Your task to perform on an android device: Open accessibility settings Image 0: 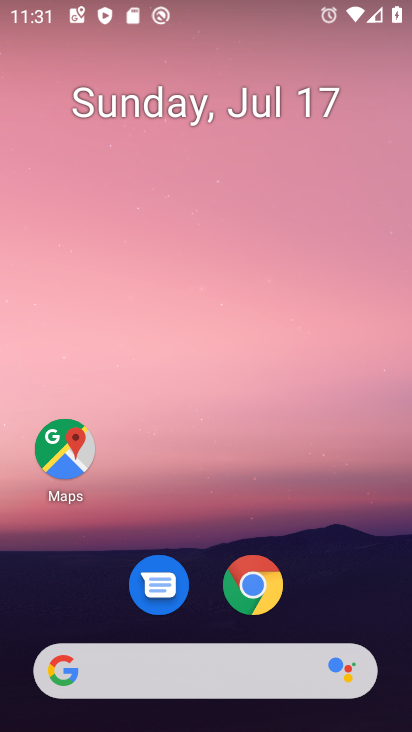
Step 0: drag from (340, 582) to (303, 56)
Your task to perform on an android device: Open accessibility settings Image 1: 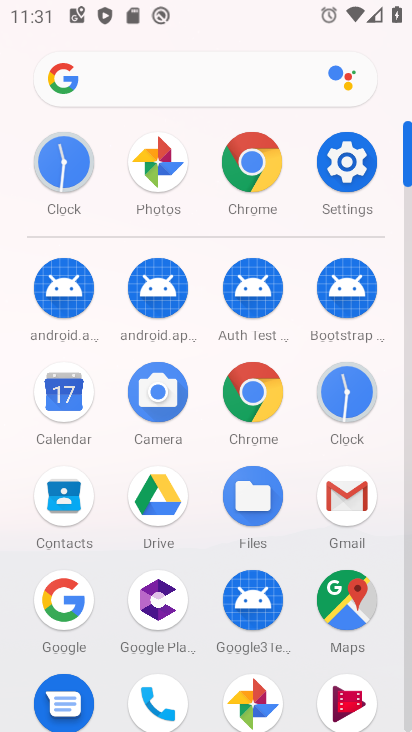
Step 1: click (339, 158)
Your task to perform on an android device: Open accessibility settings Image 2: 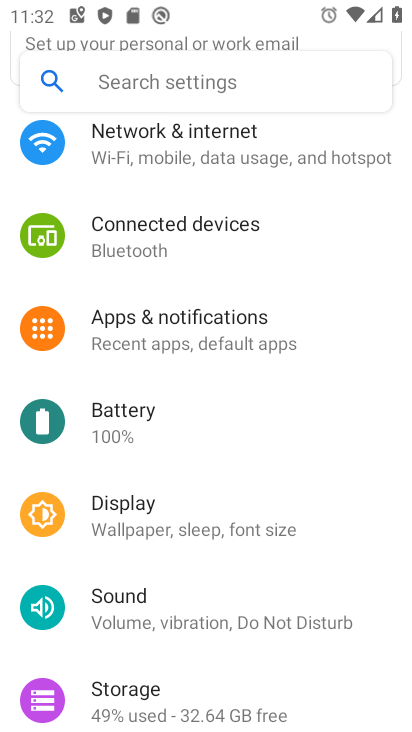
Step 2: drag from (247, 562) to (246, 29)
Your task to perform on an android device: Open accessibility settings Image 3: 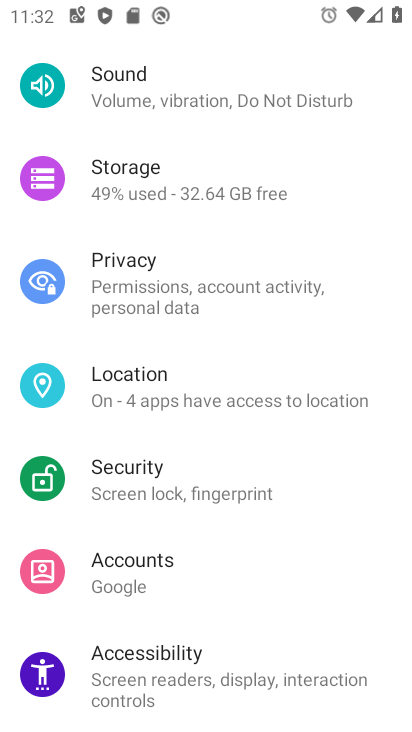
Step 3: drag from (289, 583) to (277, 141)
Your task to perform on an android device: Open accessibility settings Image 4: 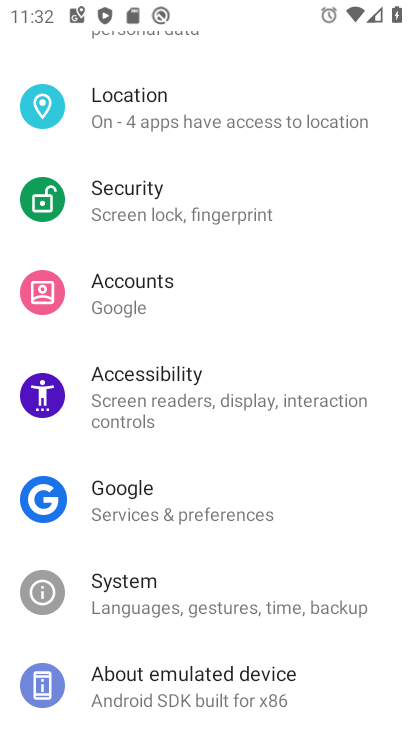
Step 4: click (223, 379)
Your task to perform on an android device: Open accessibility settings Image 5: 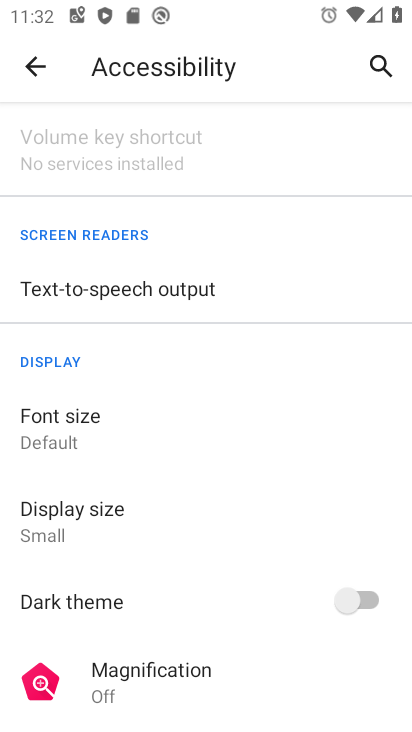
Step 5: task complete